Your task to perform on an android device: Go to location settings Image 0: 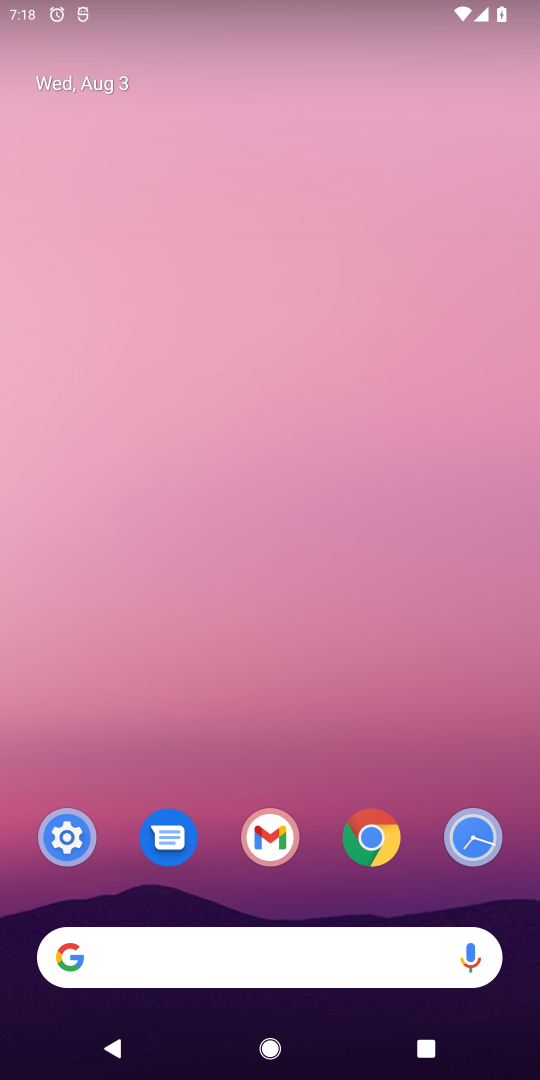
Step 0: press home button
Your task to perform on an android device: Go to location settings Image 1: 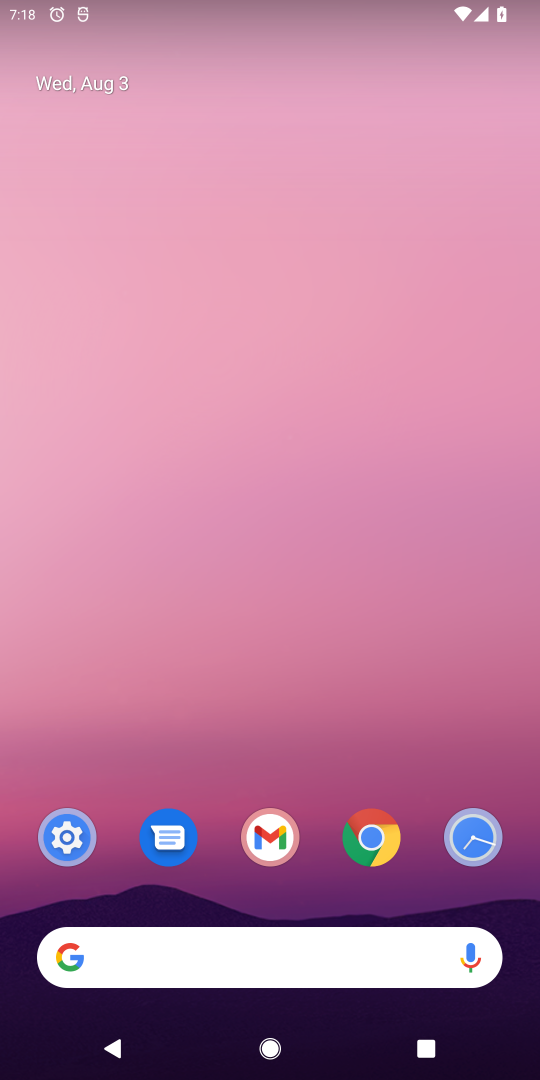
Step 1: drag from (335, 681) to (344, 16)
Your task to perform on an android device: Go to location settings Image 2: 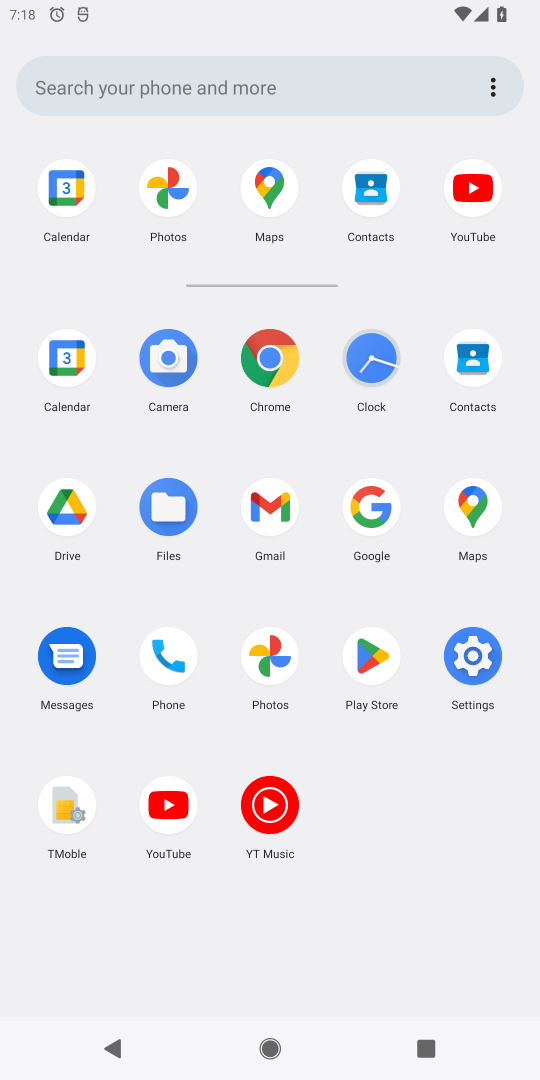
Step 2: click (453, 645)
Your task to perform on an android device: Go to location settings Image 3: 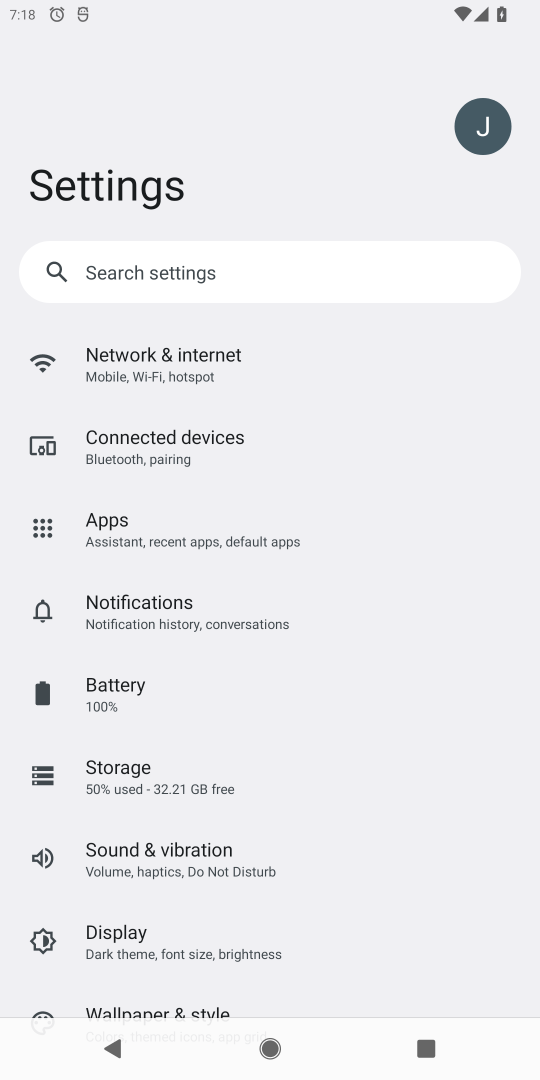
Step 3: drag from (268, 933) to (205, 382)
Your task to perform on an android device: Go to location settings Image 4: 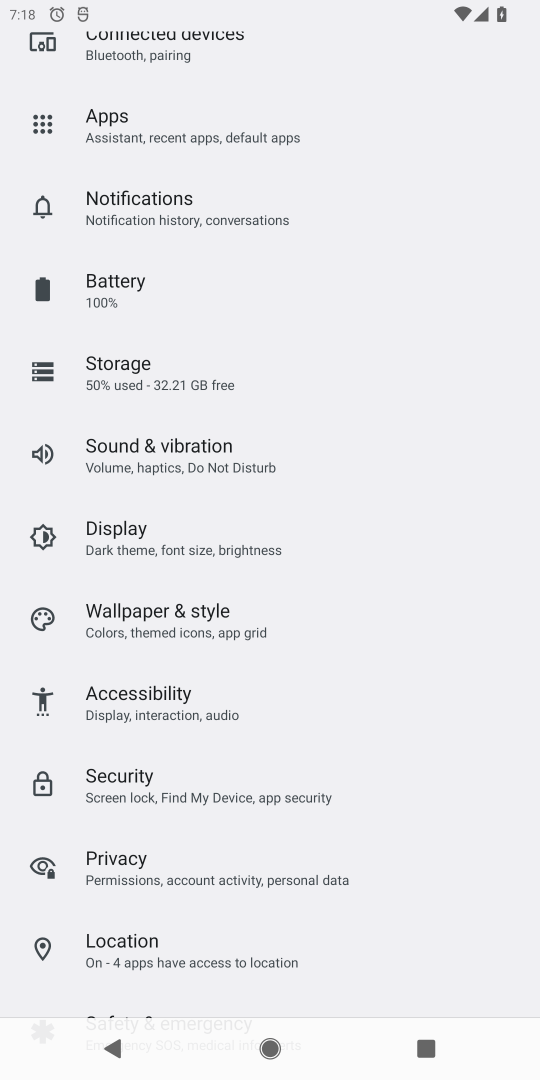
Step 4: click (185, 951)
Your task to perform on an android device: Go to location settings Image 5: 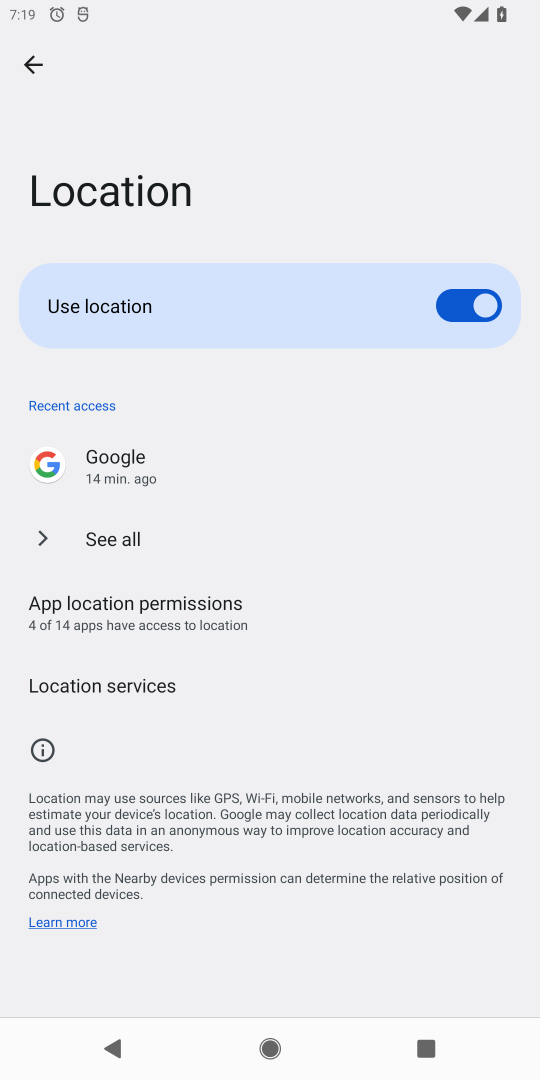
Step 5: task complete